Your task to perform on an android device: Show the shopping cart on ebay. Search for usb-a on ebay, select the first entry, add it to the cart, then select checkout. Image 0: 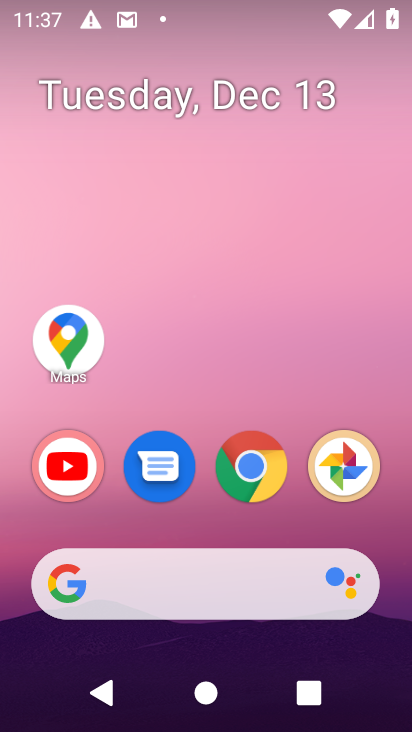
Step 0: drag from (211, 428) to (208, 27)
Your task to perform on an android device: Show the shopping cart on ebay. Search for usb-a on ebay, select the first entry, add it to the cart, then select checkout. Image 1: 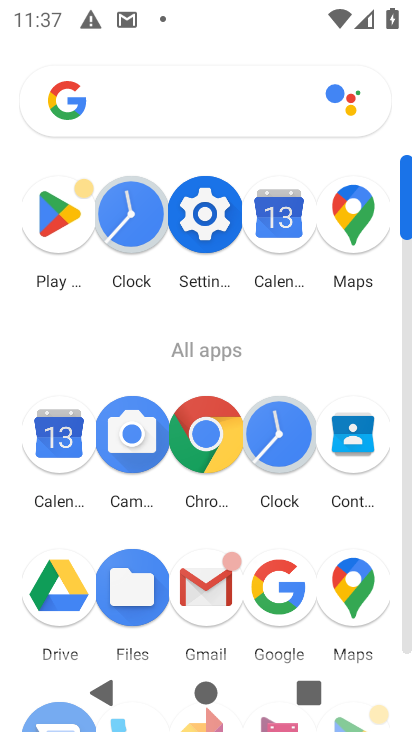
Step 1: click (272, 585)
Your task to perform on an android device: Show the shopping cart on ebay. Search for usb-a on ebay, select the first entry, add it to the cart, then select checkout. Image 2: 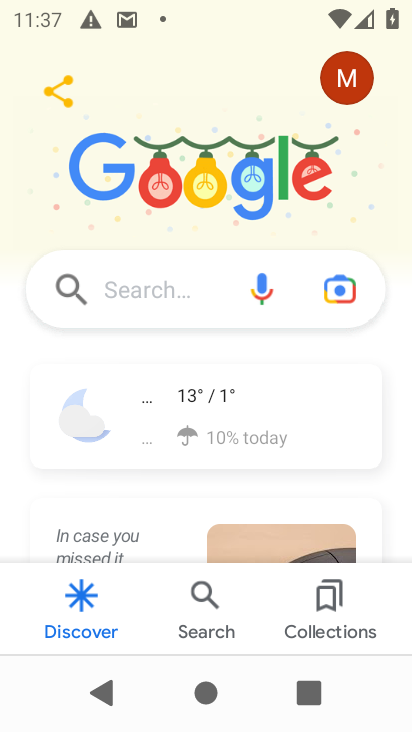
Step 2: click (127, 283)
Your task to perform on an android device: Show the shopping cart on ebay. Search for usb-a on ebay, select the first entry, add it to the cart, then select checkout. Image 3: 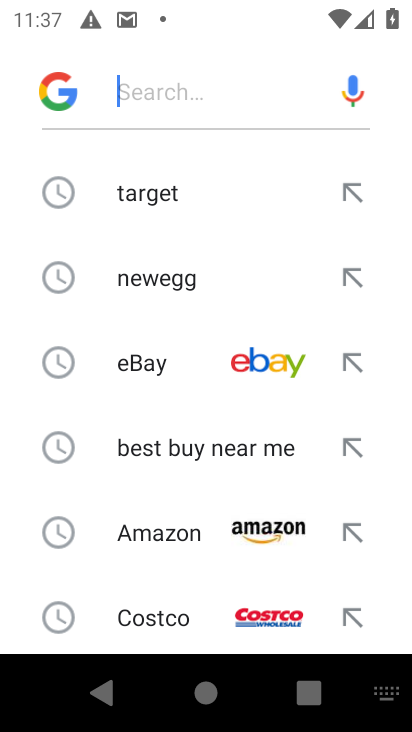
Step 3: click (244, 366)
Your task to perform on an android device: Show the shopping cart on ebay. Search for usb-a on ebay, select the first entry, add it to the cart, then select checkout. Image 4: 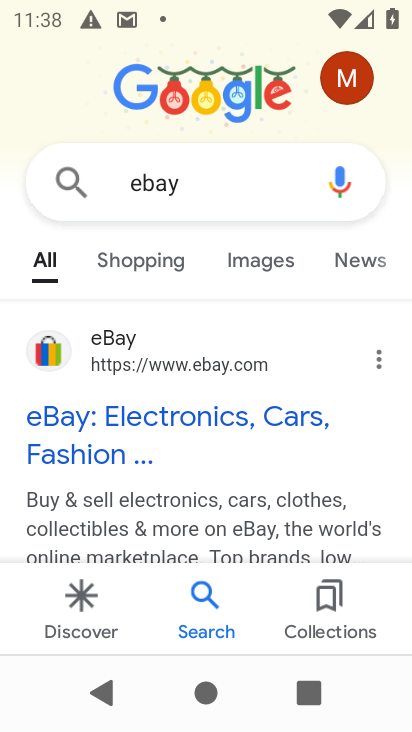
Step 4: click (221, 352)
Your task to perform on an android device: Show the shopping cart on ebay. Search for usb-a on ebay, select the first entry, add it to the cart, then select checkout. Image 5: 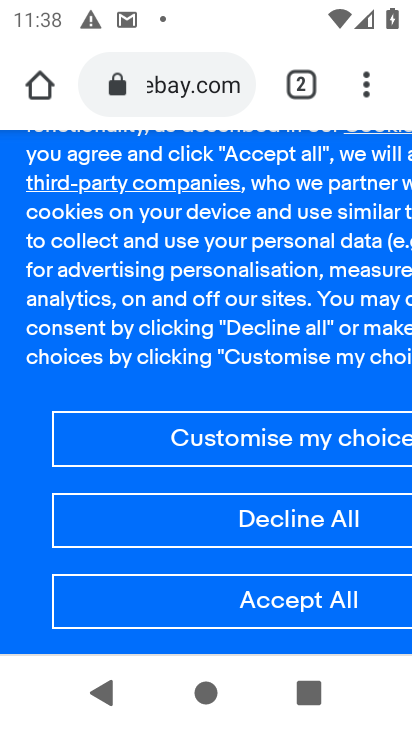
Step 5: click (293, 601)
Your task to perform on an android device: Show the shopping cart on ebay. Search for usb-a on ebay, select the first entry, add it to the cart, then select checkout. Image 6: 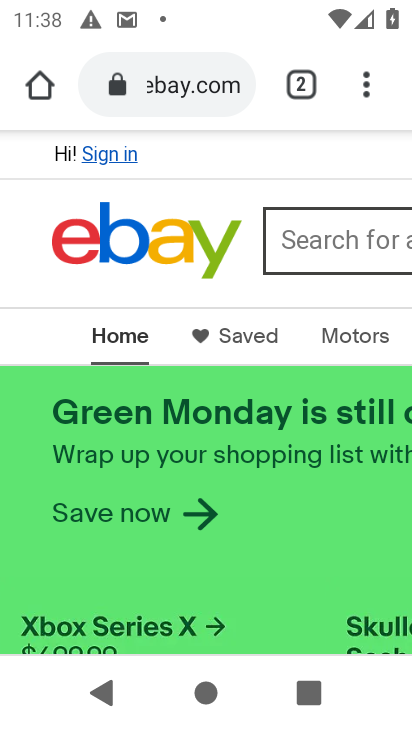
Step 6: click (347, 230)
Your task to perform on an android device: Show the shopping cart on ebay. Search for usb-a on ebay, select the first entry, add it to the cart, then select checkout. Image 7: 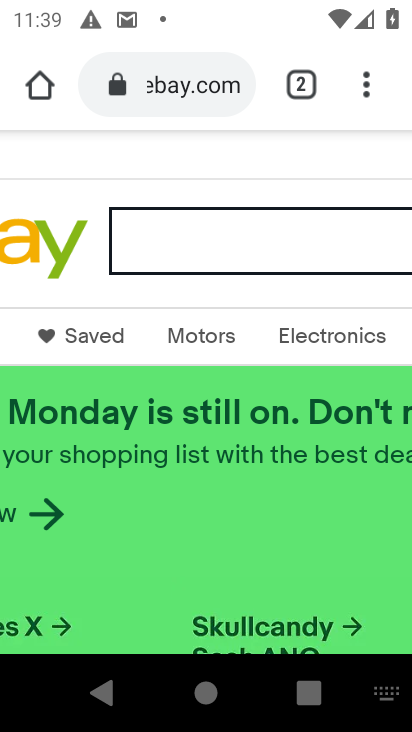
Step 7: click (321, 238)
Your task to perform on an android device: Show the shopping cart on ebay. Search for usb-a on ebay, select the first entry, add it to the cart, then select checkout. Image 8: 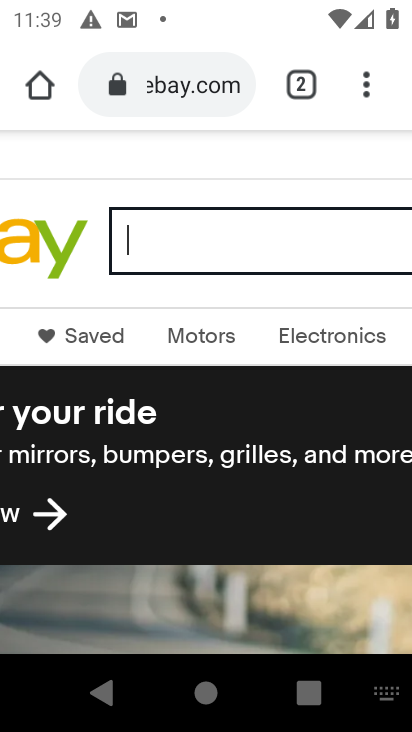
Step 8: click (268, 244)
Your task to perform on an android device: Show the shopping cart on ebay. Search for usb-a on ebay, select the first entry, add it to the cart, then select checkout. Image 9: 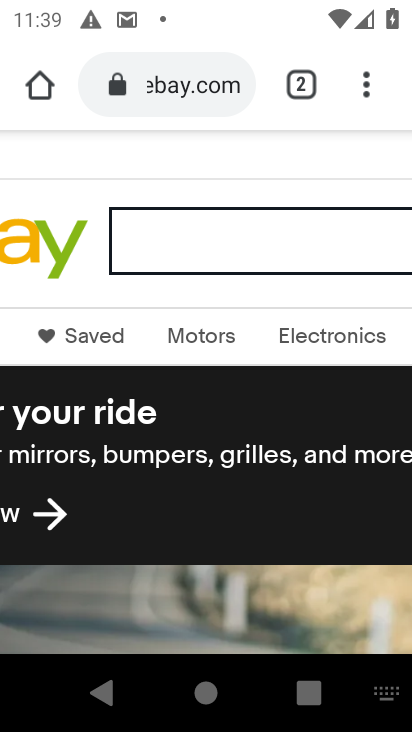
Step 9: click (268, 244)
Your task to perform on an android device: Show the shopping cart on ebay. Search for usb-a on ebay, select the first entry, add it to the cart, then select checkout. Image 10: 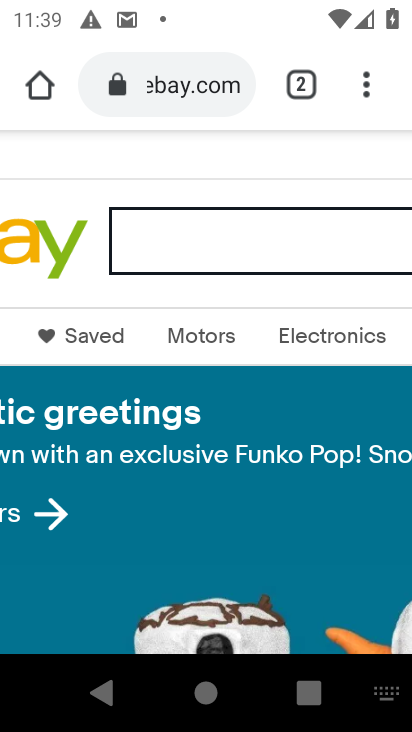
Step 10: click (145, 244)
Your task to perform on an android device: Show the shopping cart on ebay. Search for usb-a on ebay, select the first entry, add it to the cart, then select checkout. Image 11: 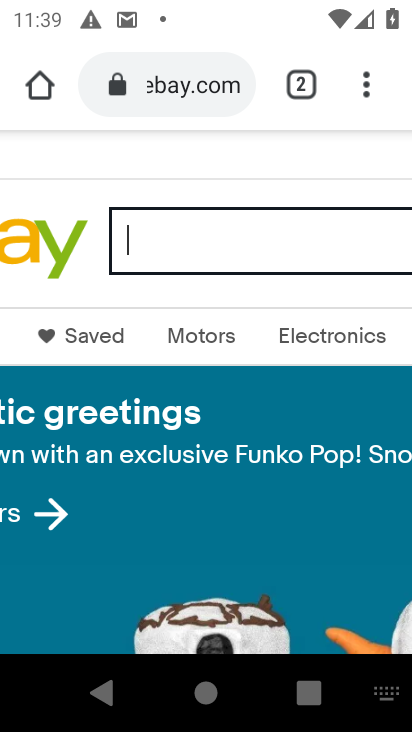
Step 11: click (145, 244)
Your task to perform on an android device: Show the shopping cart on ebay. Search for usb-a on ebay, select the first entry, add it to the cart, then select checkout. Image 12: 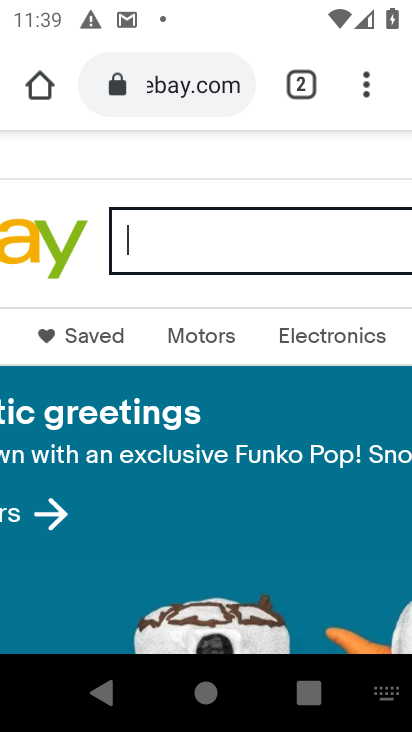
Step 12: type "usb-a"
Your task to perform on an android device: Show the shopping cart on ebay. Search for usb-a on ebay, select the first entry, add it to the cart, then select checkout. Image 13: 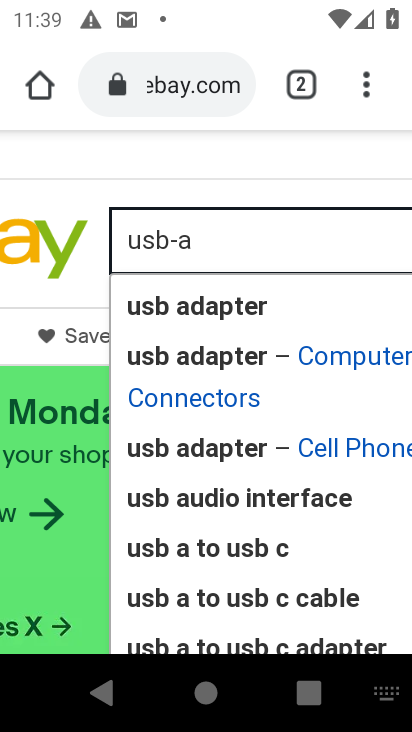
Step 13: drag from (111, 183) to (35, 180)
Your task to perform on an android device: Show the shopping cart on ebay. Search for usb-a on ebay, select the first entry, add it to the cart, then select checkout. Image 14: 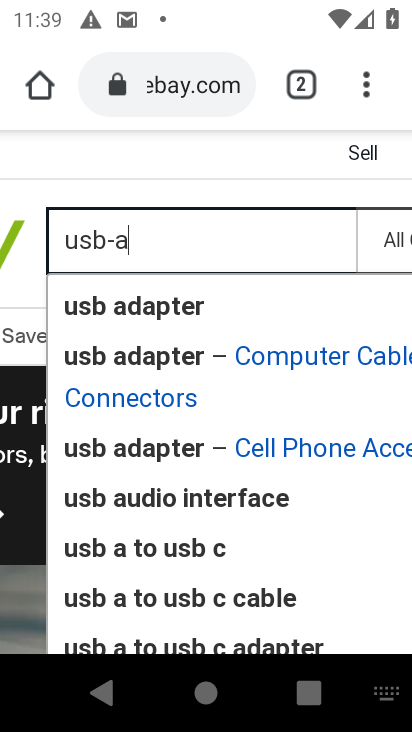
Step 14: click (385, 247)
Your task to perform on an android device: Show the shopping cart on ebay. Search for usb-a on ebay, select the first entry, add it to the cart, then select checkout. Image 15: 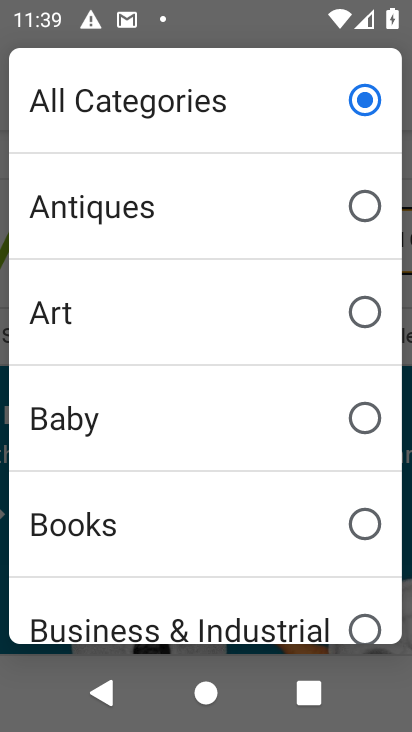
Step 15: click (305, 90)
Your task to perform on an android device: Show the shopping cart on ebay. Search for usb-a on ebay, select the first entry, add it to the cart, then select checkout. Image 16: 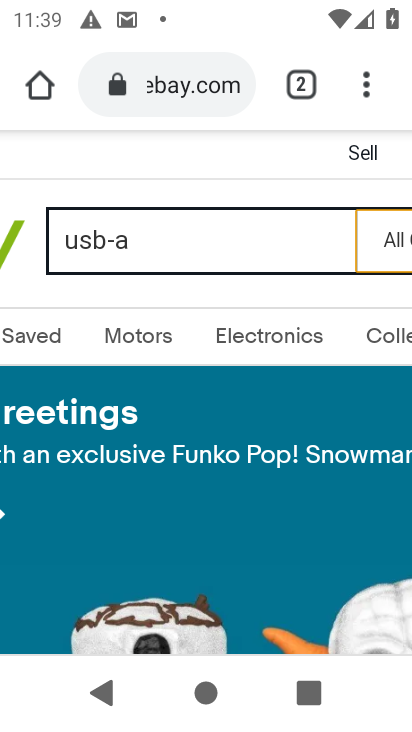
Step 16: drag from (273, 178) to (107, 178)
Your task to perform on an android device: Show the shopping cart on ebay. Search for usb-a on ebay, select the first entry, add it to the cart, then select checkout. Image 17: 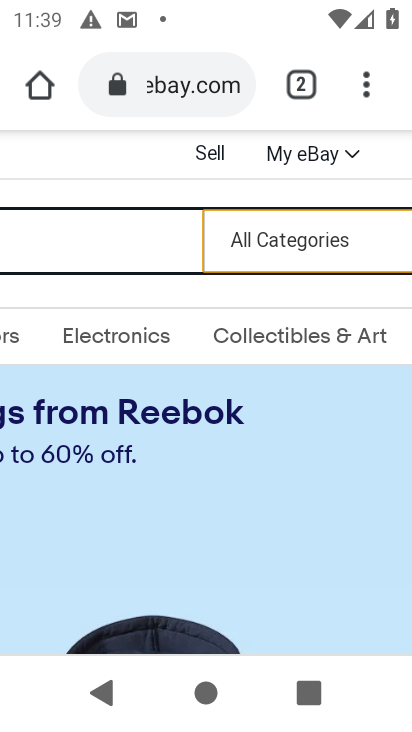
Step 17: drag from (308, 187) to (48, 233)
Your task to perform on an android device: Show the shopping cart on ebay. Search for usb-a on ebay, select the first entry, add it to the cart, then select checkout. Image 18: 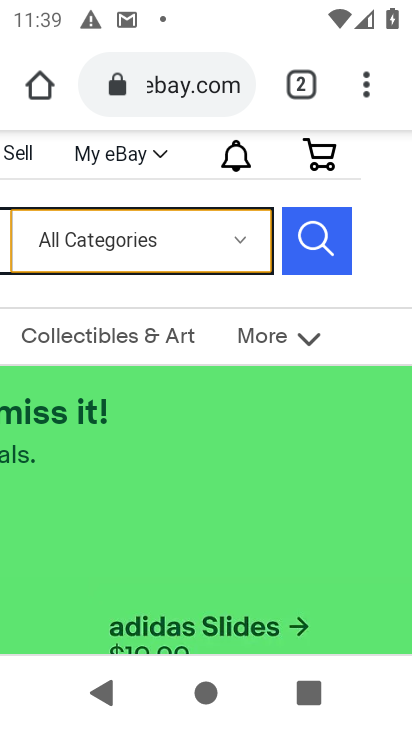
Step 18: click (309, 232)
Your task to perform on an android device: Show the shopping cart on ebay. Search for usb-a on ebay, select the first entry, add it to the cart, then select checkout. Image 19: 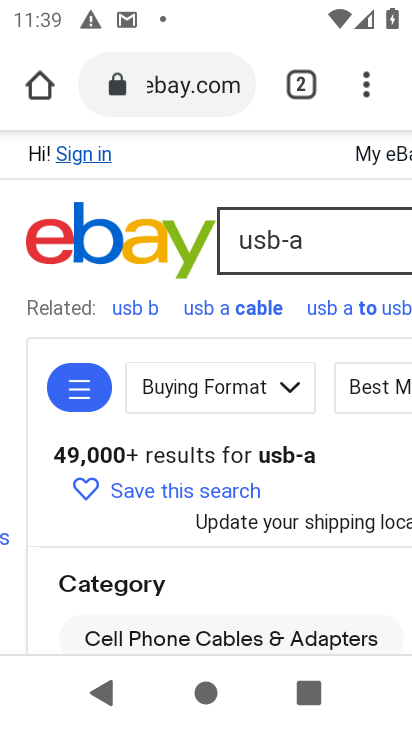
Step 19: drag from (298, 474) to (293, 342)
Your task to perform on an android device: Show the shopping cart on ebay. Search for usb-a on ebay, select the first entry, add it to the cart, then select checkout. Image 20: 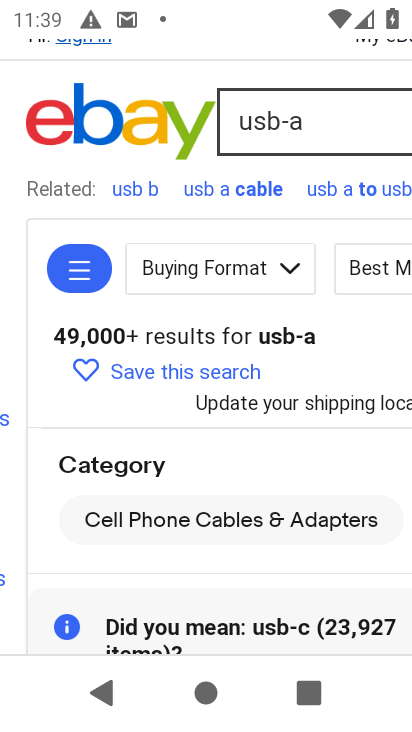
Step 20: drag from (227, 565) to (222, 277)
Your task to perform on an android device: Show the shopping cart on ebay. Search for usb-a on ebay, select the first entry, add it to the cart, then select checkout. Image 21: 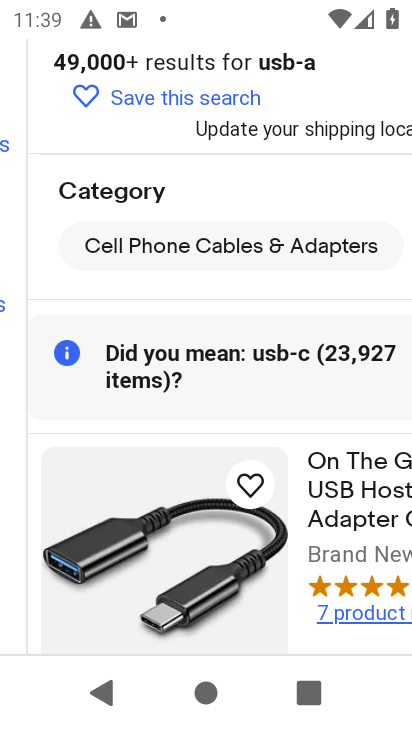
Step 21: drag from (271, 479) to (21, 483)
Your task to perform on an android device: Show the shopping cart on ebay. Search for usb-a on ebay, select the first entry, add it to the cart, then select checkout. Image 22: 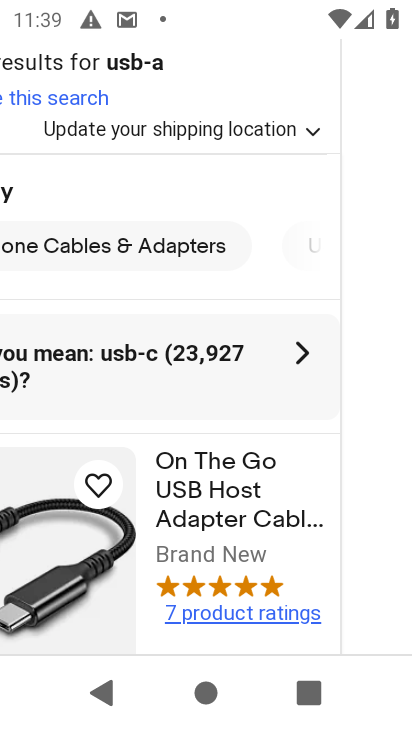
Step 22: drag from (251, 563) to (262, 405)
Your task to perform on an android device: Show the shopping cart on ebay. Search for usb-a on ebay, select the first entry, add it to the cart, then select checkout. Image 23: 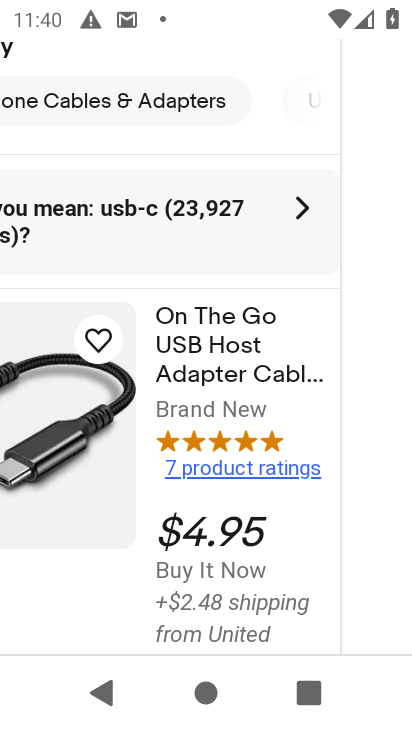
Step 23: drag from (281, 506) to (280, 288)
Your task to perform on an android device: Show the shopping cart on ebay. Search for usb-a on ebay, select the first entry, add it to the cart, then select checkout. Image 24: 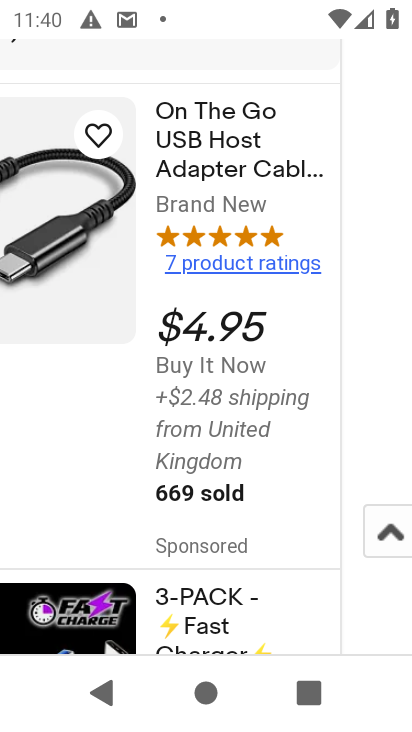
Step 24: drag from (72, 482) to (327, 488)
Your task to perform on an android device: Show the shopping cart on ebay. Search for usb-a on ebay, select the first entry, add it to the cart, then select checkout. Image 25: 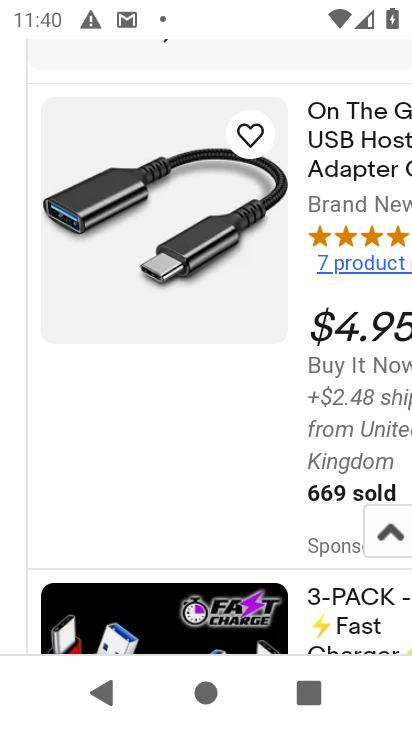
Step 25: drag from (160, 479) to (12, 481)
Your task to perform on an android device: Show the shopping cart on ebay. Search for usb-a on ebay, select the first entry, add it to the cart, then select checkout. Image 26: 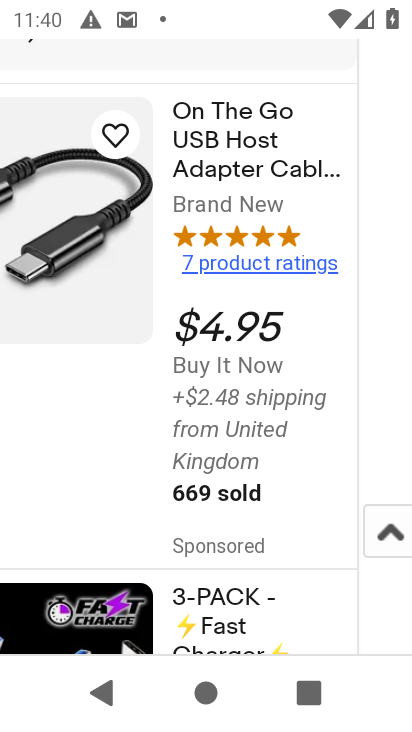
Step 26: drag from (260, 510) to (277, 372)
Your task to perform on an android device: Show the shopping cart on ebay. Search for usb-a on ebay, select the first entry, add it to the cart, then select checkout. Image 27: 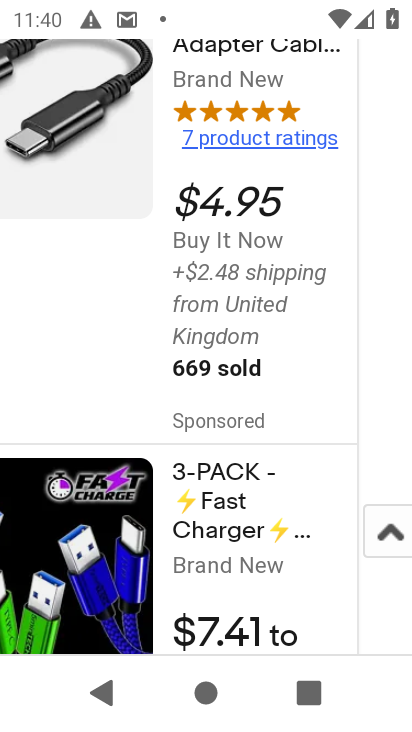
Step 27: click (189, 388)
Your task to perform on an android device: Show the shopping cart on ebay. Search for usb-a on ebay, select the first entry, add it to the cart, then select checkout. Image 28: 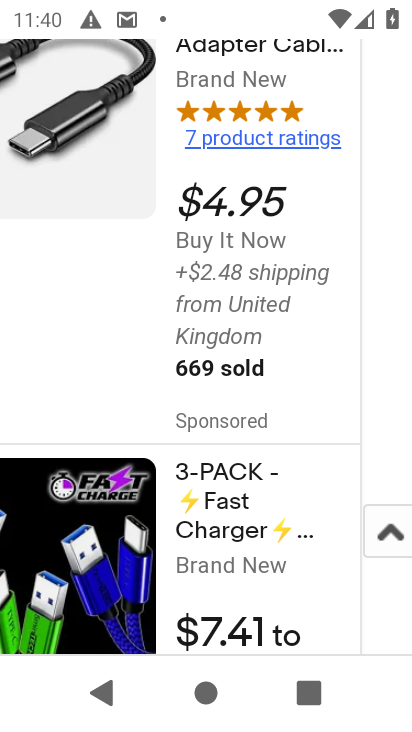
Step 28: click (126, 127)
Your task to perform on an android device: Show the shopping cart on ebay. Search for usb-a on ebay, select the first entry, add it to the cart, then select checkout. Image 29: 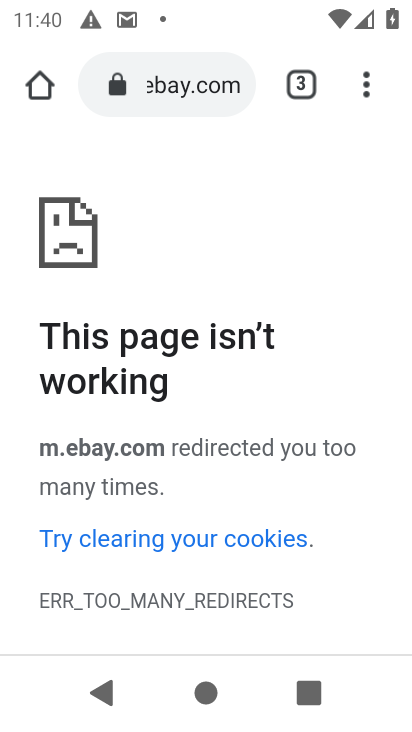
Step 29: task complete